Your task to perform on an android device: open the mobile data screen to see how much data has been used Image 0: 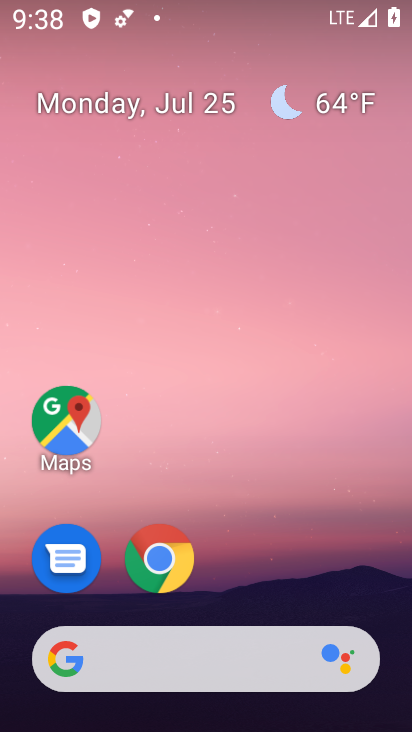
Step 0: press home button
Your task to perform on an android device: open the mobile data screen to see how much data has been used Image 1: 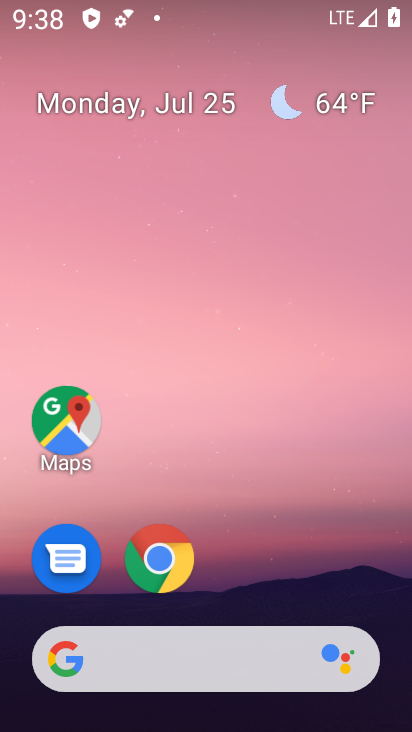
Step 1: drag from (344, 582) to (358, 158)
Your task to perform on an android device: open the mobile data screen to see how much data has been used Image 2: 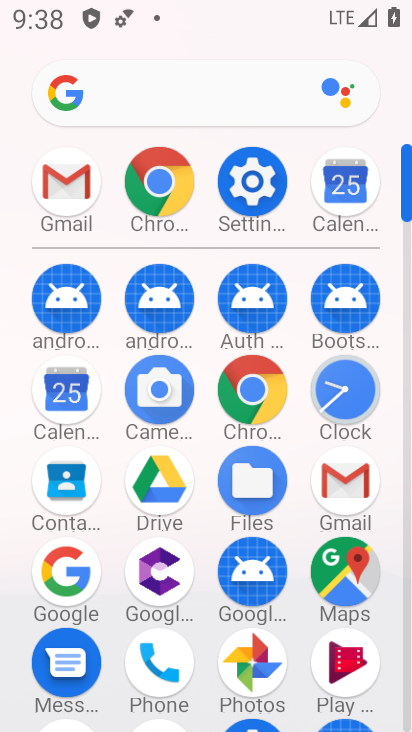
Step 2: click (251, 188)
Your task to perform on an android device: open the mobile data screen to see how much data has been used Image 3: 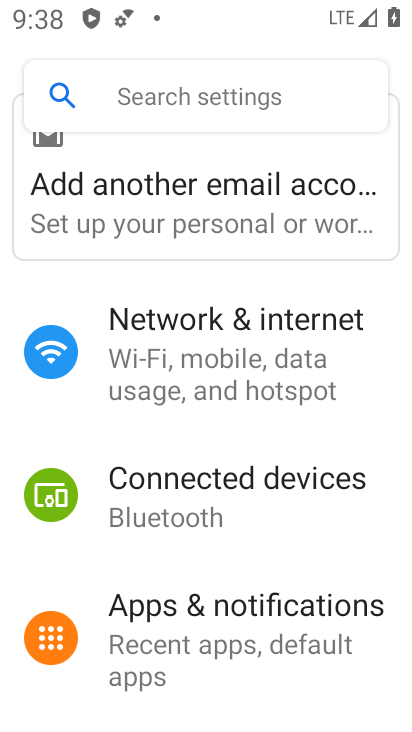
Step 3: click (210, 331)
Your task to perform on an android device: open the mobile data screen to see how much data has been used Image 4: 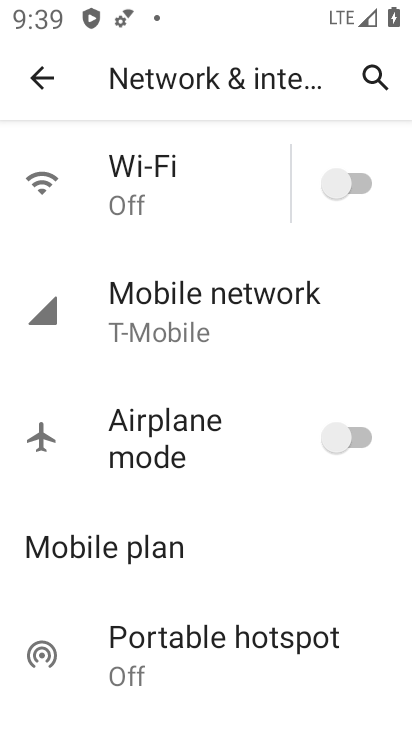
Step 4: click (202, 306)
Your task to perform on an android device: open the mobile data screen to see how much data has been used Image 5: 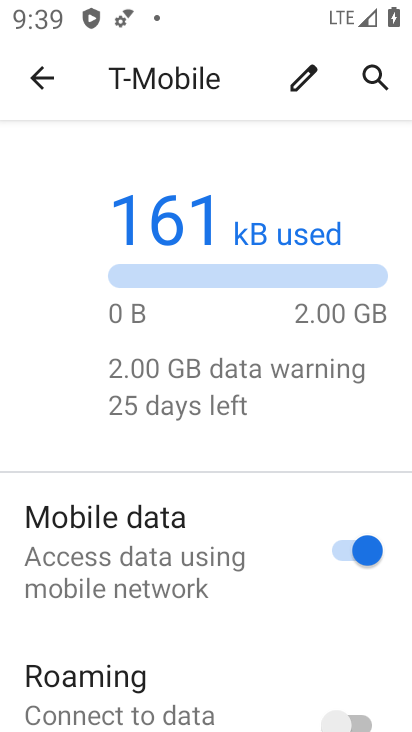
Step 5: drag from (252, 613) to (269, 472)
Your task to perform on an android device: open the mobile data screen to see how much data has been used Image 6: 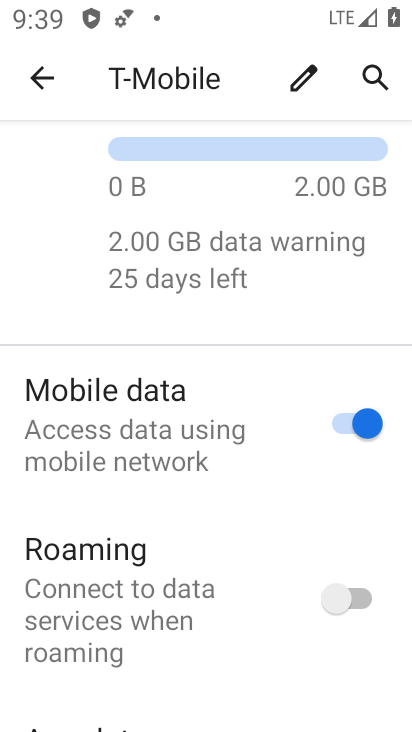
Step 6: drag from (234, 601) to (243, 496)
Your task to perform on an android device: open the mobile data screen to see how much data has been used Image 7: 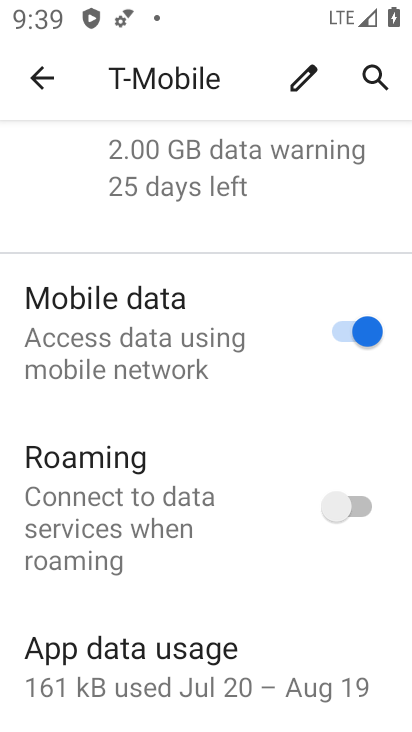
Step 7: drag from (258, 617) to (266, 505)
Your task to perform on an android device: open the mobile data screen to see how much data has been used Image 8: 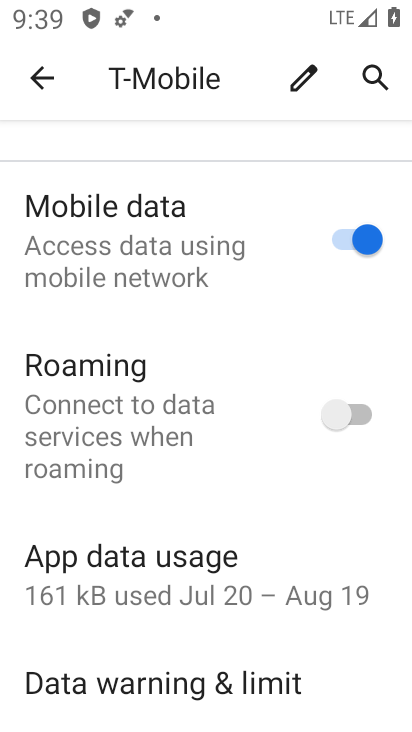
Step 8: drag from (256, 635) to (260, 486)
Your task to perform on an android device: open the mobile data screen to see how much data has been used Image 9: 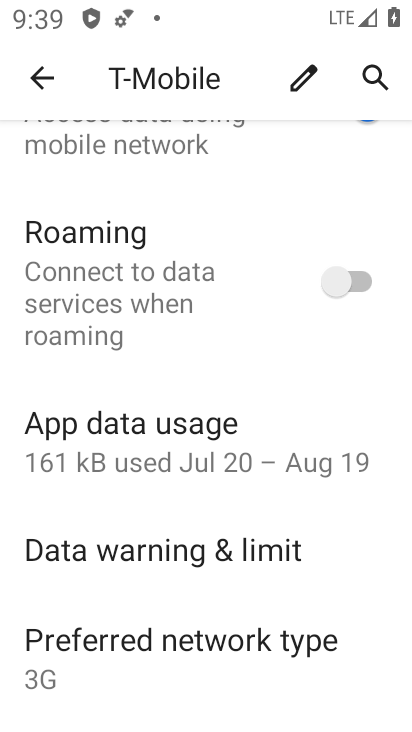
Step 9: click (236, 459)
Your task to perform on an android device: open the mobile data screen to see how much data has been used Image 10: 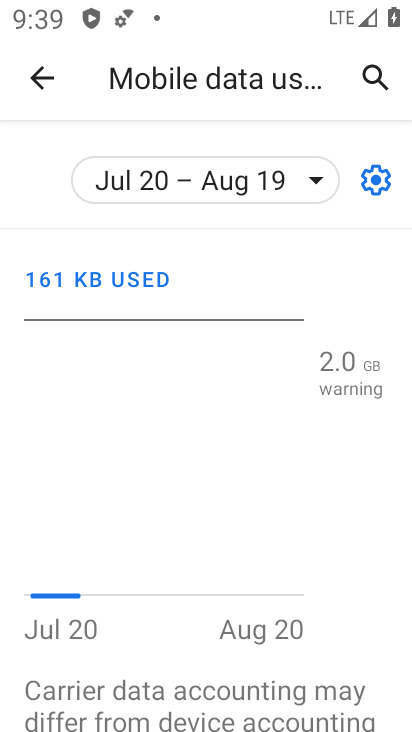
Step 10: task complete